Your task to perform on an android device: Open display settings Image 0: 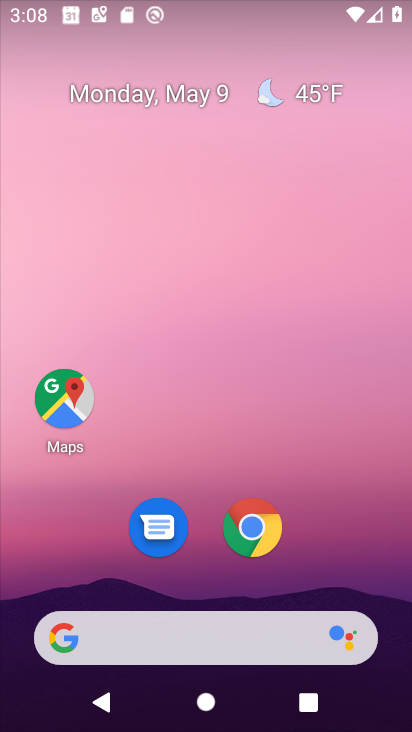
Step 0: drag from (225, 531) to (211, 146)
Your task to perform on an android device: Open display settings Image 1: 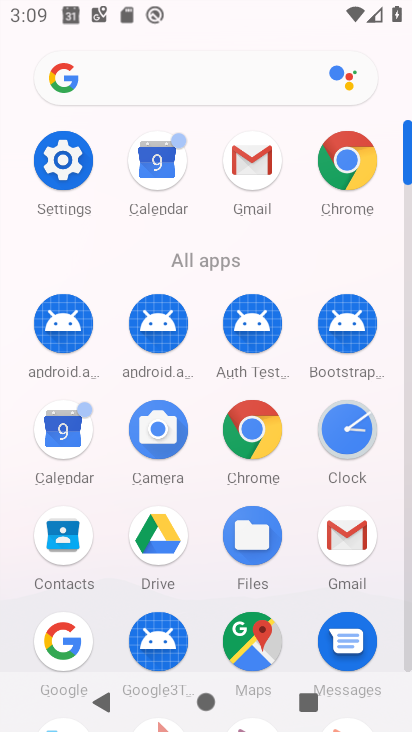
Step 1: click (83, 175)
Your task to perform on an android device: Open display settings Image 2: 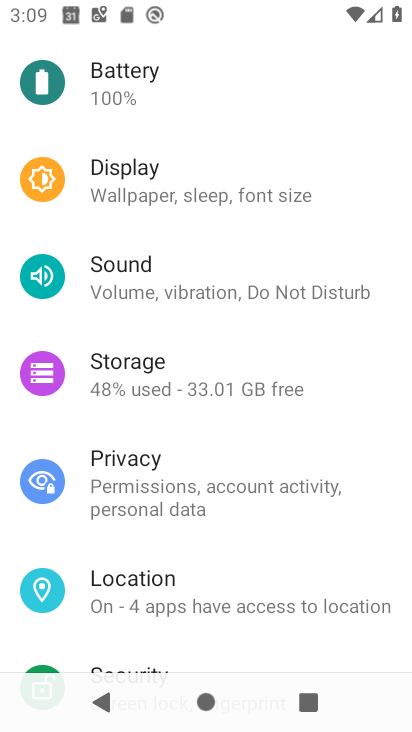
Step 2: click (161, 177)
Your task to perform on an android device: Open display settings Image 3: 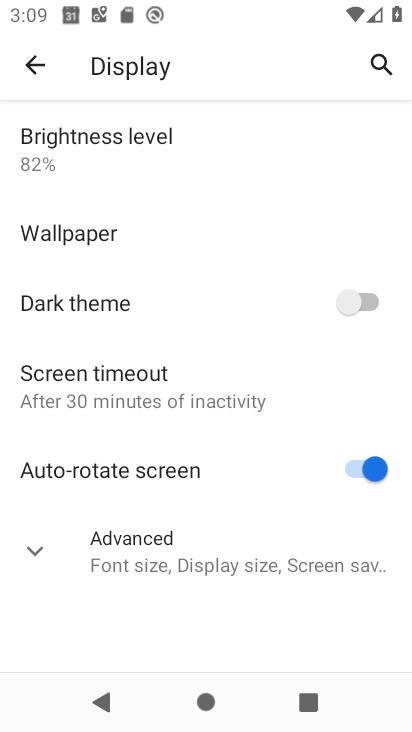
Step 3: click (224, 556)
Your task to perform on an android device: Open display settings Image 4: 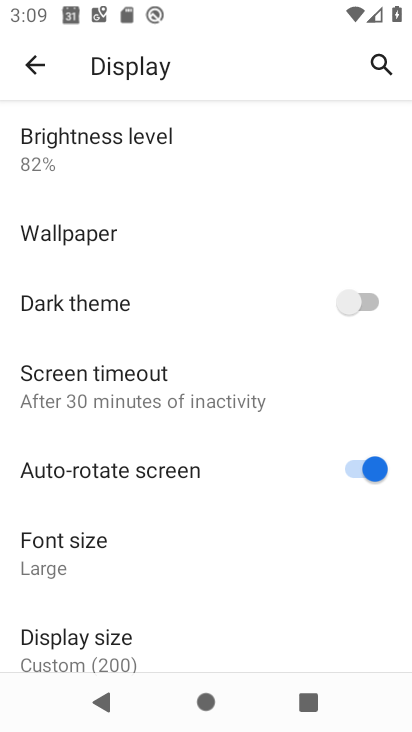
Step 4: task complete